Your task to perform on an android device: open app "Microsoft Authenticator" Image 0: 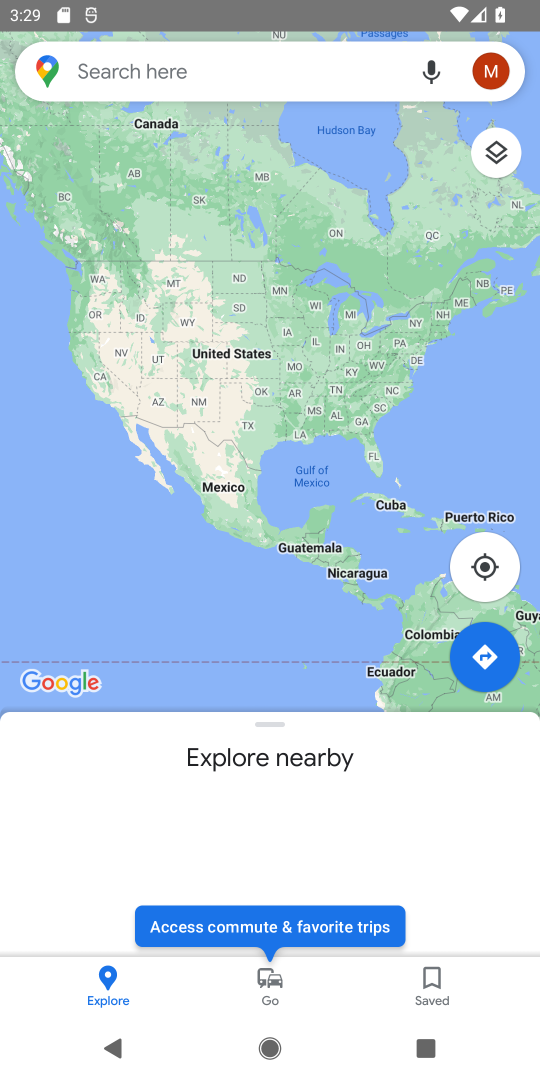
Step 0: press home button
Your task to perform on an android device: open app "Microsoft Authenticator" Image 1: 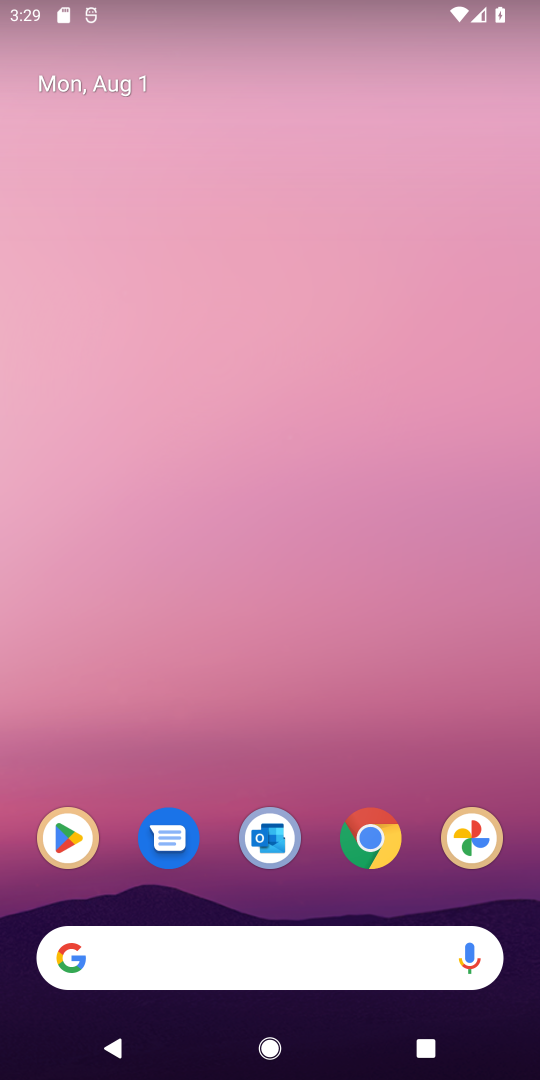
Step 1: click (91, 842)
Your task to perform on an android device: open app "Microsoft Authenticator" Image 2: 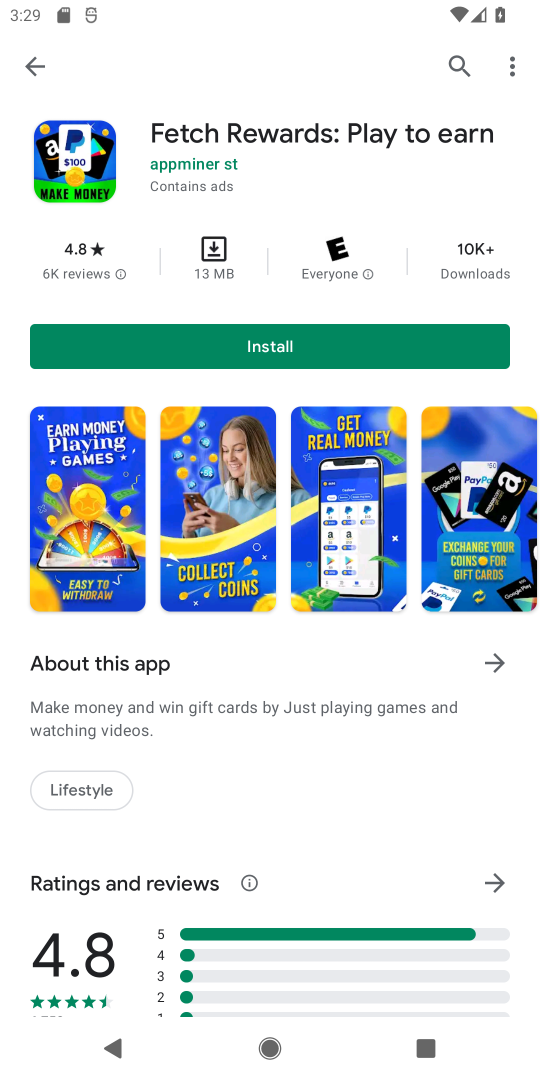
Step 2: click (455, 79)
Your task to perform on an android device: open app "Microsoft Authenticator" Image 3: 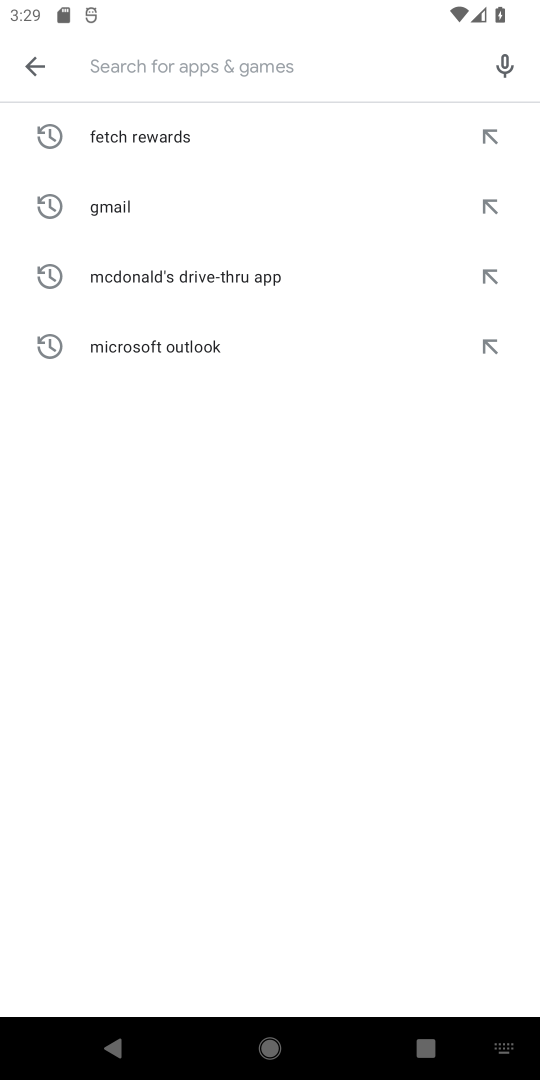
Step 3: type "Microsoft Authenticator"
Your task to perform on an android device: open app "Microsoft Authenticator" Image 4: 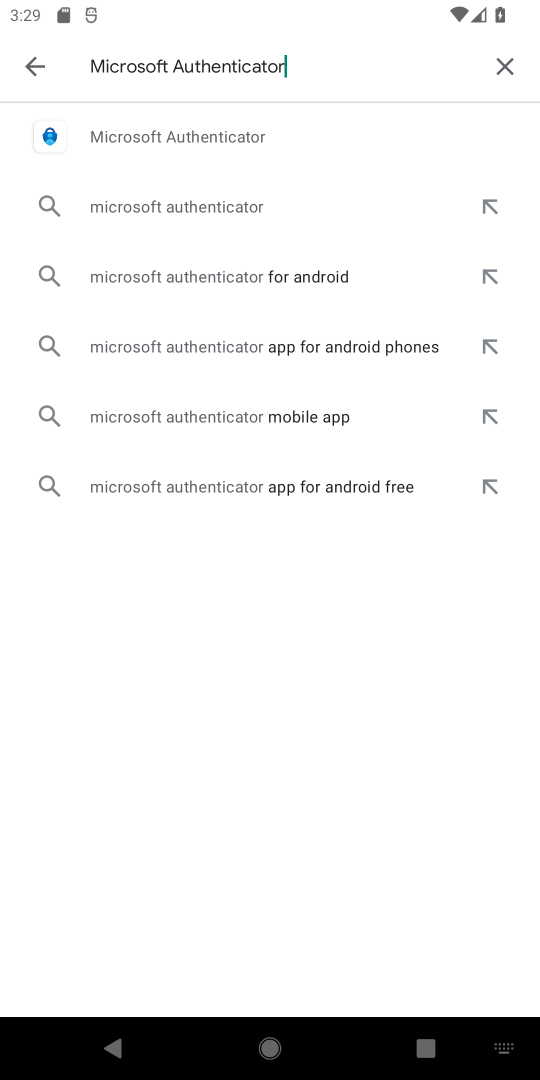
Step 4: click (308, 159)
Your task to perform on an android device: open app "Microsoft Authenticator" Image 5: 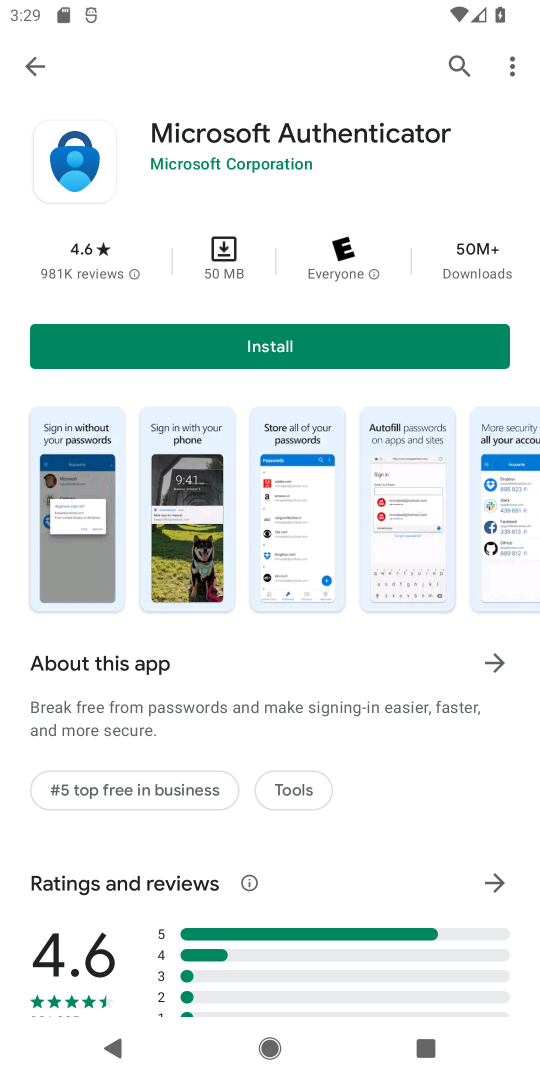
Step 5: task complete